Your task to perform on an android device: Open the Play Movies app and select the watchlist tab. Image 0: 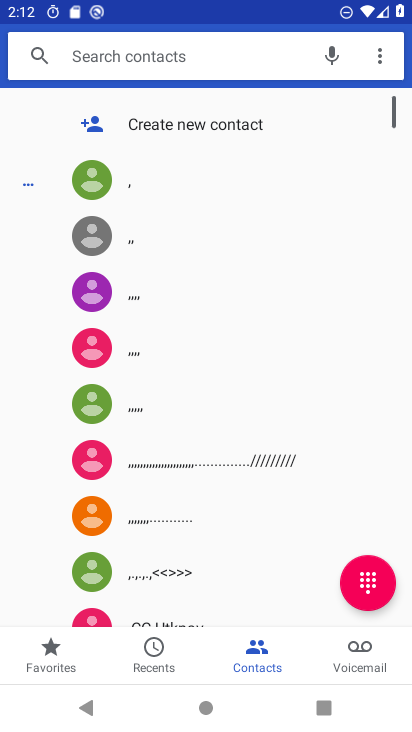
Step 0: press home button
Your task to perform on an android device: Open the Play Movies app and select the watchlist tab. Image 1: 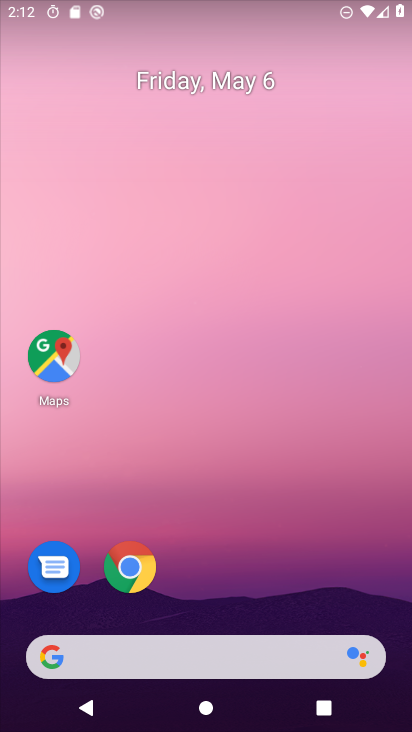
Step 1: drag from (252, 683) to (301, 275)
Your task to perform on an android device: Open the Play Movies app and select the watchlist tab. Image 2: 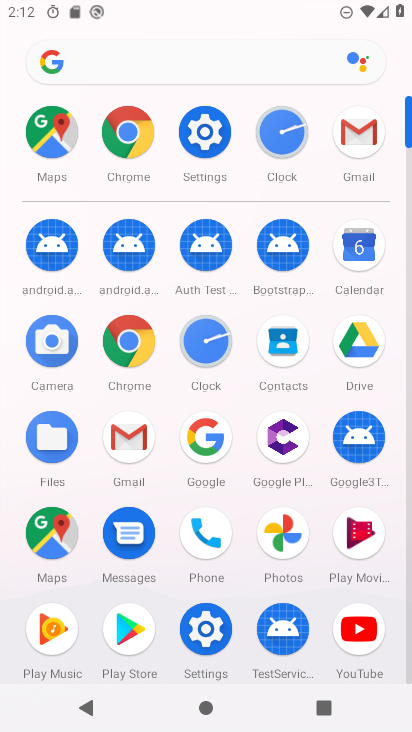
Step 2: click (353, 528)
Your task to perform on an android device: Open the Play Movies app and select the watchlist tab. Image 3: 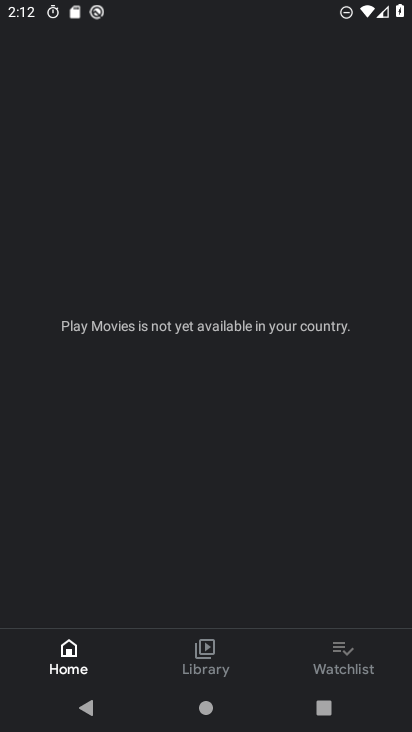
Step 3: click (342, 658)
Your task to perform on an android device: Open the Play Movies app and select the watchlist tab. Image 4: 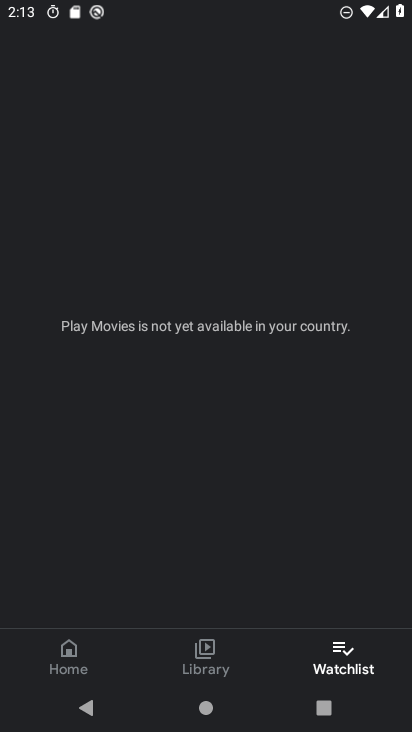
Step 4: task complete